Your task to perform on an android device: Go to privacy settings Image 0: 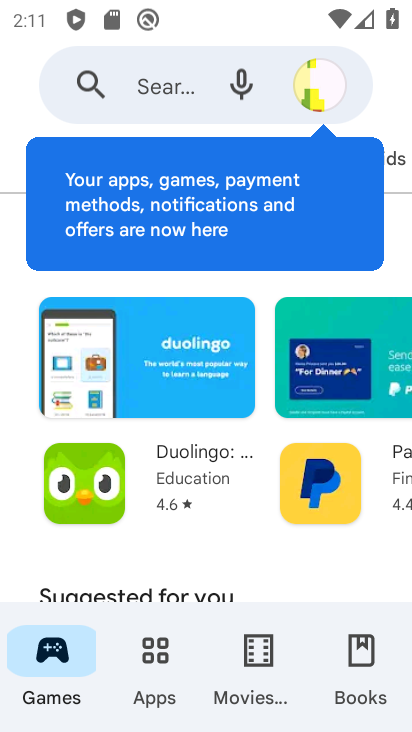
Step 0: press back button
Your task to perform on an android device: Go to privacy settings Image 1: 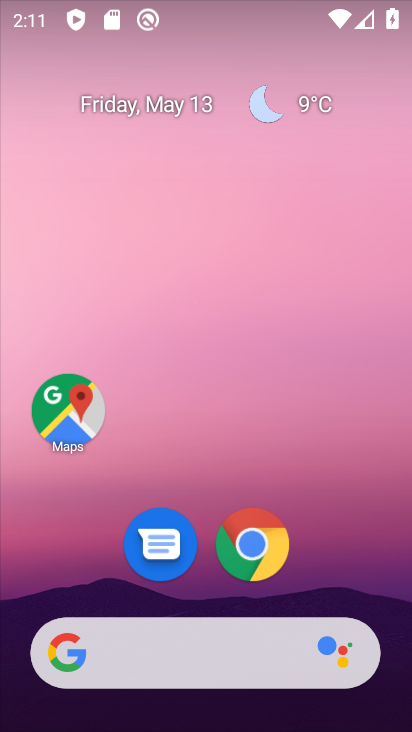
Step 1: click (261, 558)
Your task to perform on an android device: Go to privacy settings Image 2: 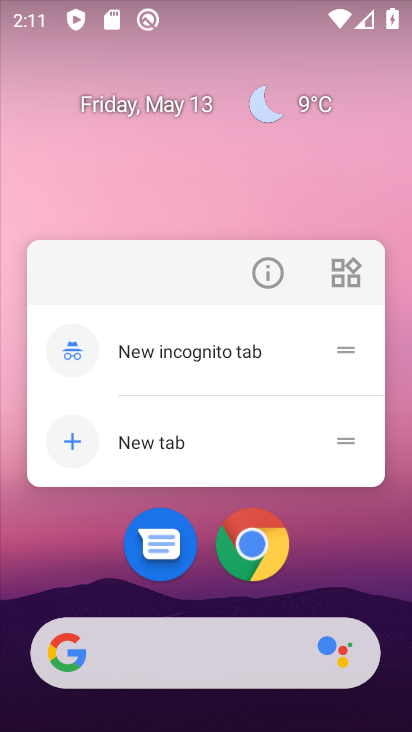
Step 2: click (261, 551)
Your task to perform on an android device: Go to privacy settings Image 3: 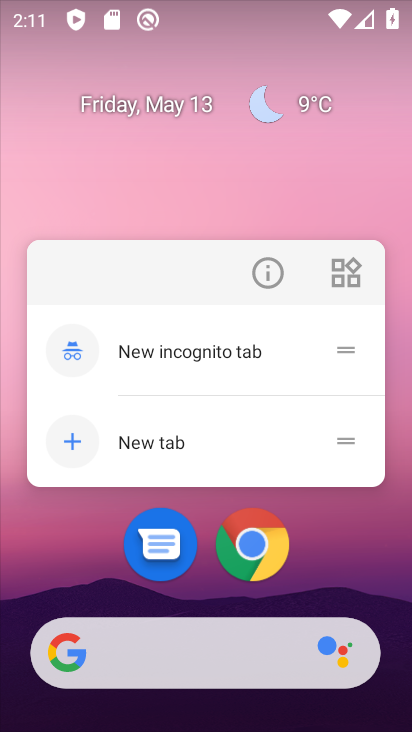
Step 3: click (264, 536)
Your task to perform on an android device: Go to privacy settings Image 4: 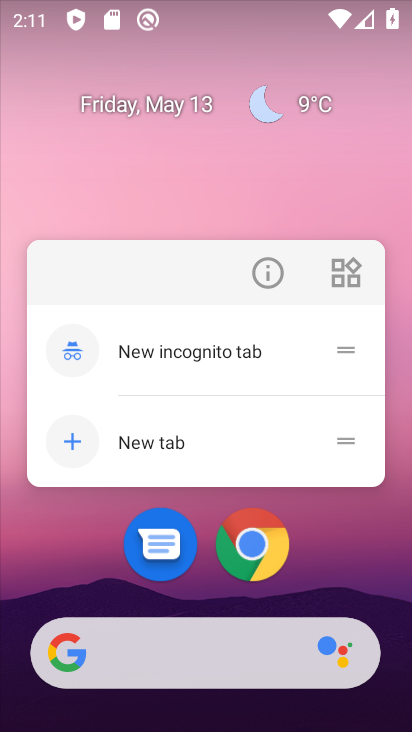
Step 4: click (252, 544)
Your task to perform on an android device: Go to privacy settings Image 5: 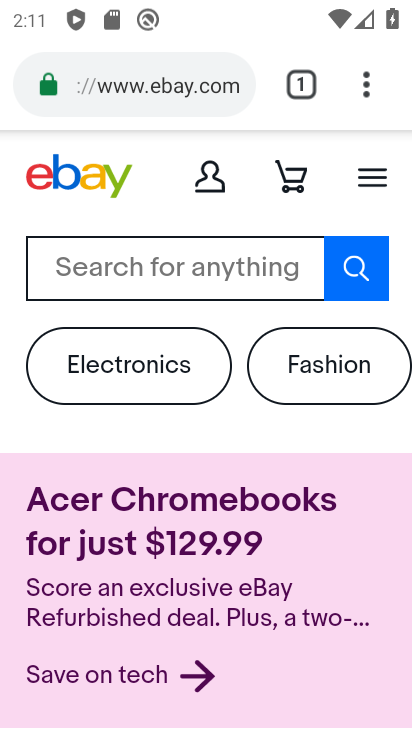
Step 5: drag from (379, 89) to (290, 605)
Your task to perform on an android device: Go to privacy settings Image 6: 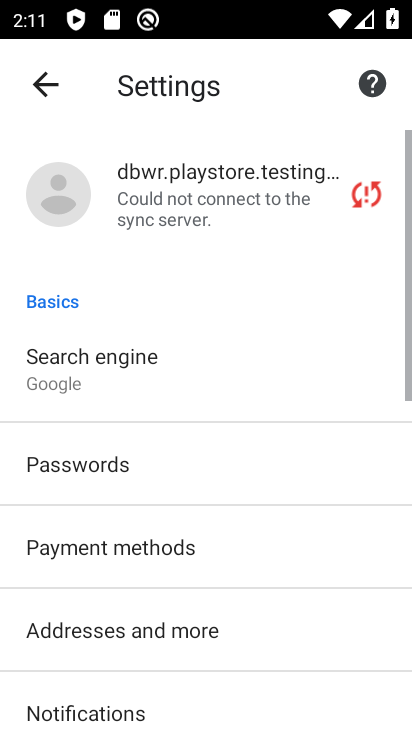
Step 6: drag from (287, 581) to (405, 240)
Your task to perform on an android device: Go to privacy settings Image 7: 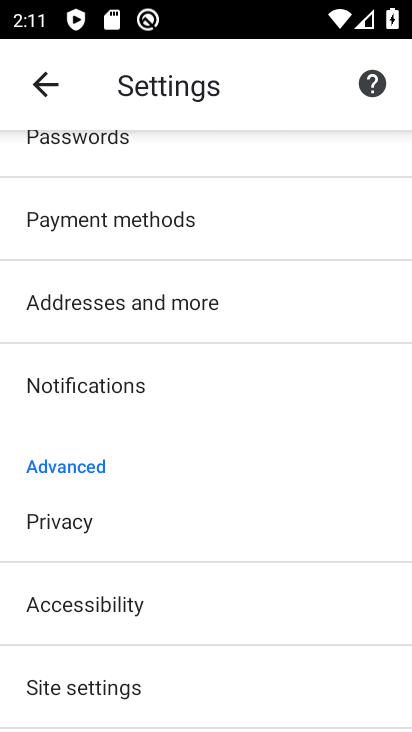
Step 7: click (129, 538)
Your task to perform on an android device: Go to privacy settings Image 8: 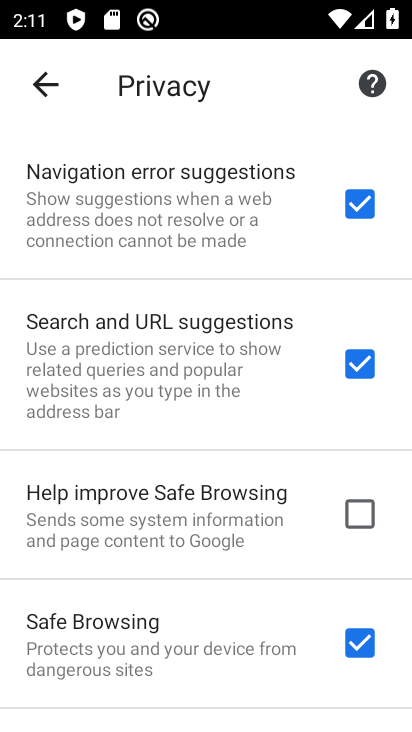
Step 8: task complete